Your task to perform on an android device: Open calendar and show me the first week of next month Image 0: 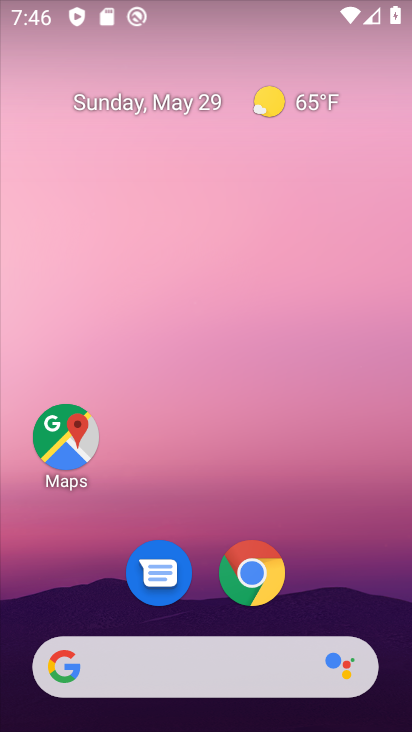
Step 0: drag from (223, 449) to (223, 267)
Your task to perform on an android device: Open calendar and show me the first week of next month Image 1: 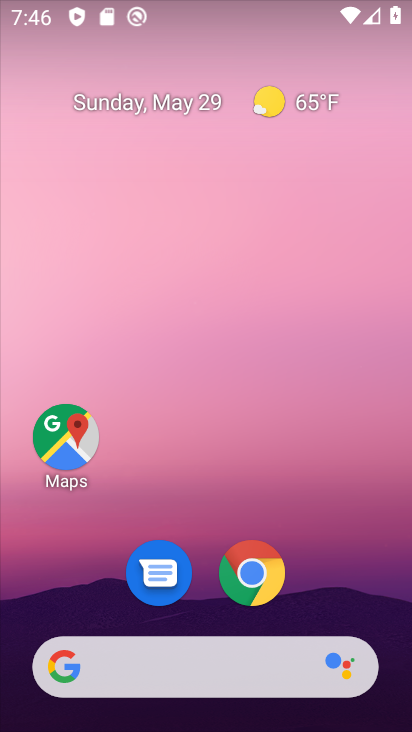
Step 1: drag from (210, 617) to (210, 215)
Your task to perform on an android device: Open calendar and show me the first week of next month Image 2: 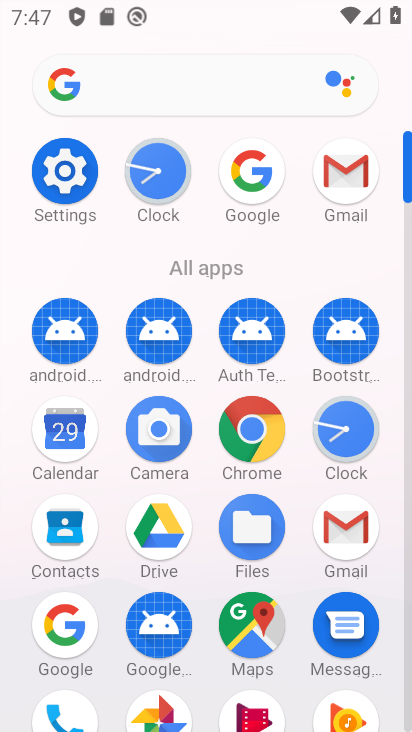
Step 2: click (79, 443)
Your task to perform on an android device: Open calendar and show me the first week of next month Image 3: 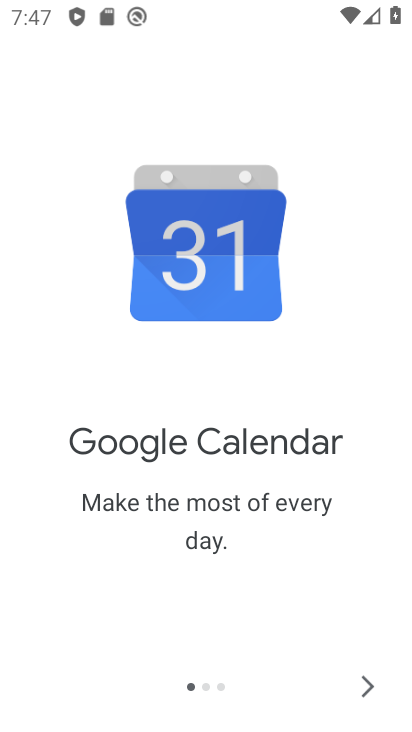
Step 3: click (346, 681)
Your task to perform on an android device: Open calendar and show me the first week of next month Image 4: 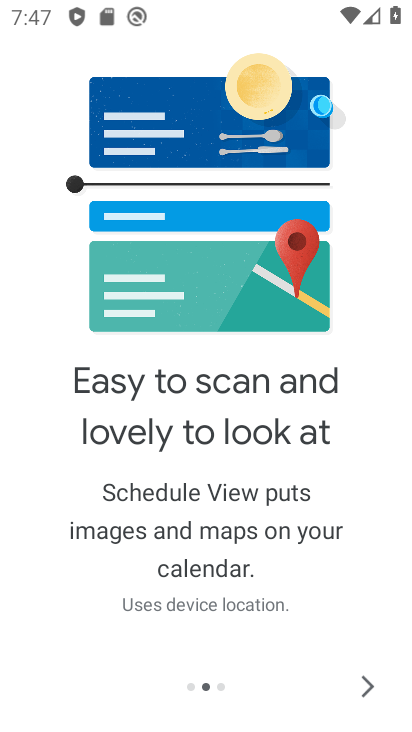
Step 4: click (346, 681)
Your task to perform on an android device: Open calendar and show me the first week of next month Image 5: 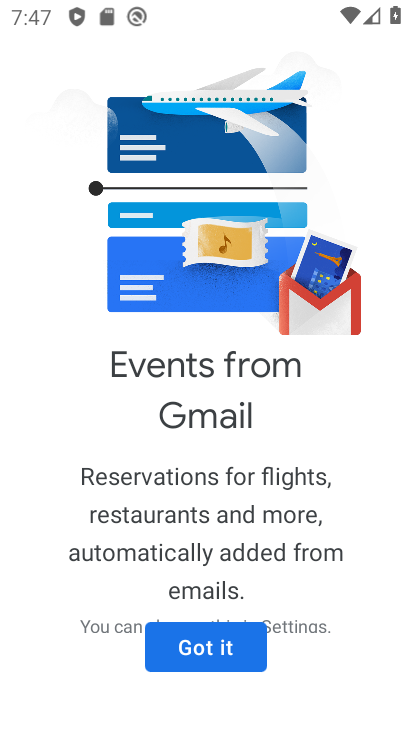
Step 5: click (346, 681)
Your task to perform on an android device: Open calendar and show me the first week of next month Image 6: 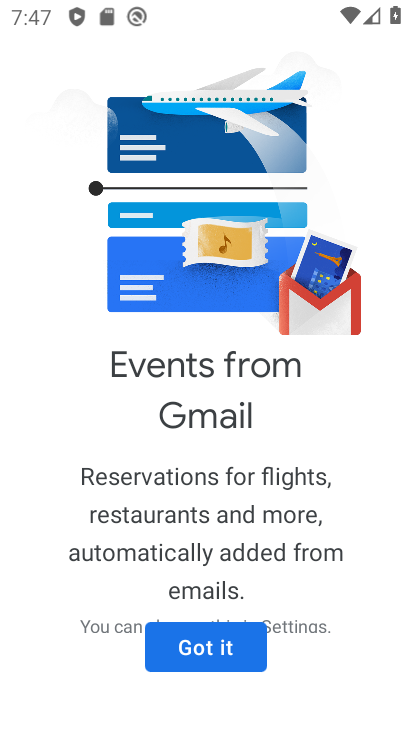
Step 6: click (233, 660)
Your task to perform on an android device: Open calendar and show me the first week of next month Image 7: 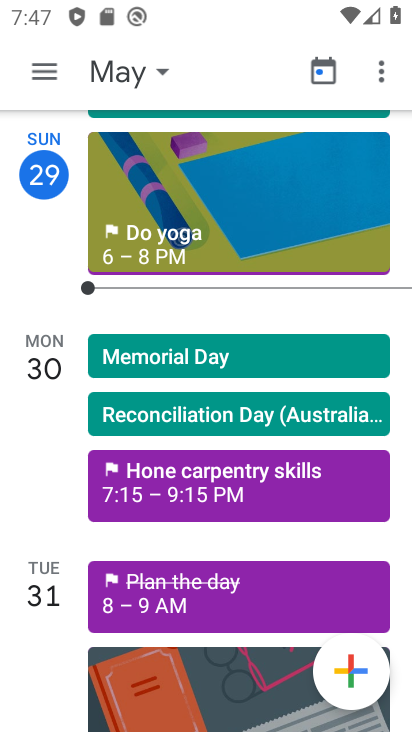
Step 7: click (144, 65)
Your task to perform on an android device: Open calendar and show me the first week of next month Image 8: 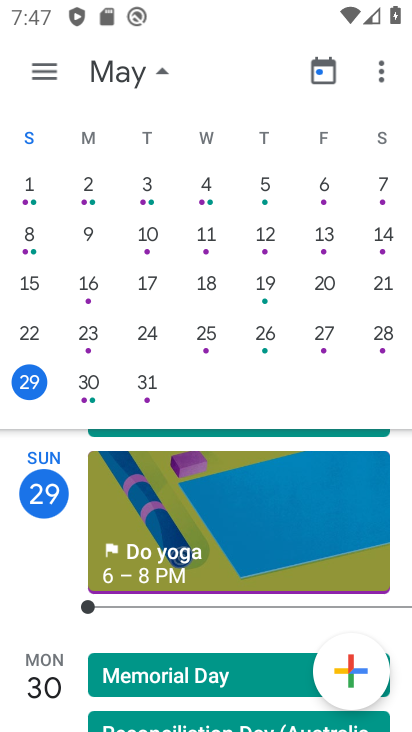
Step 8: drag from (344, 240) to (50, 216)
Your task to perform on an android device: Open calendar and show me the first week of next month Image 9: 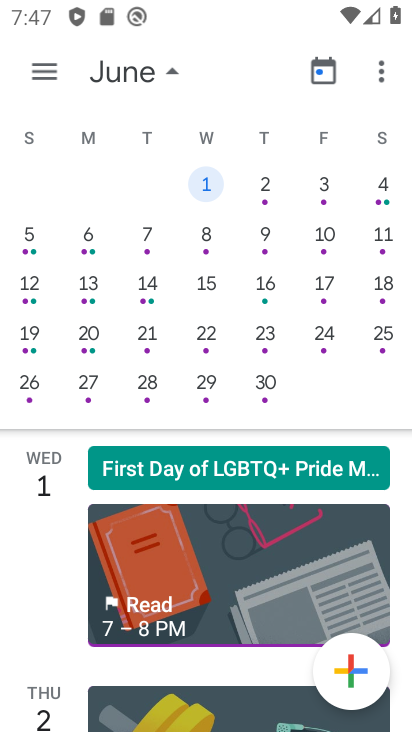
Step 9: click (197, 193)
Your task to perform on an android device: Open calendar and show me the first week of next month Image 10: 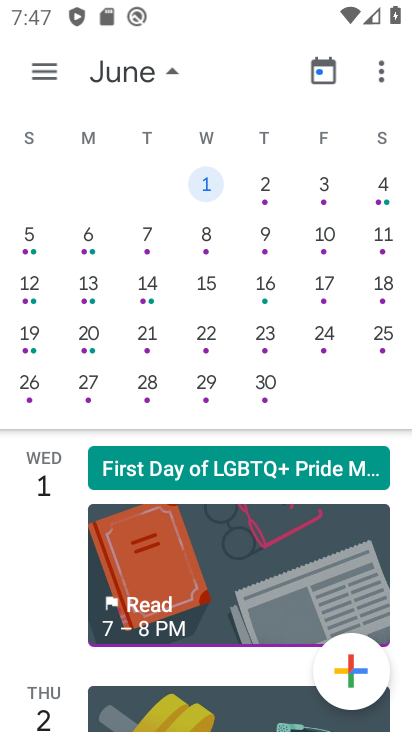
Step 10: click (220, 183)
Your task to perform on an android device: Open calendar and show me the first week of next month Image 11: 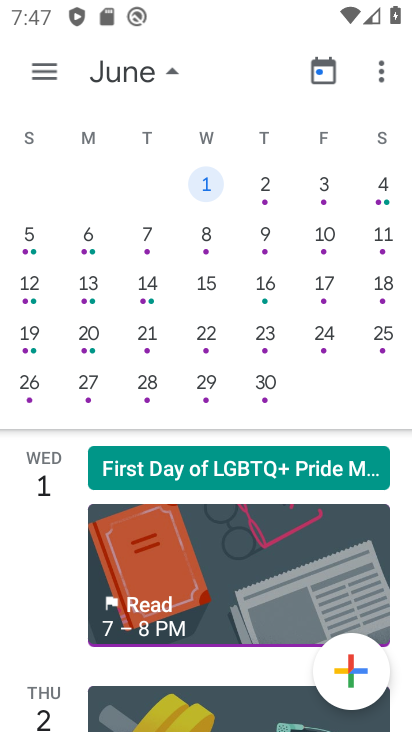
Step 11: task complete